Your task to perform on an android device: Add apple airpods to the cart on ebay.com, then select checkout. Image 0: 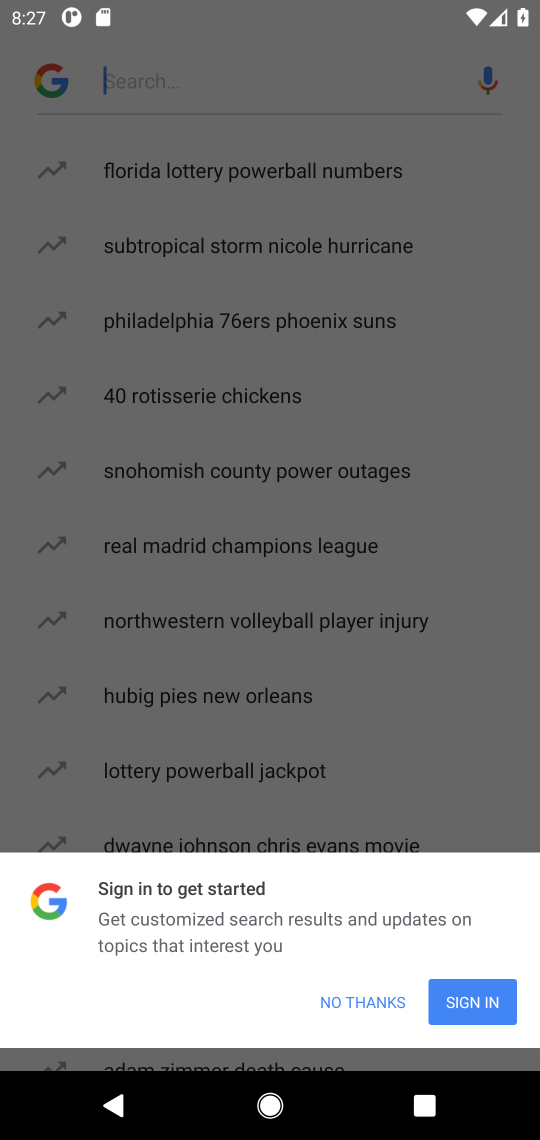
Step 0: press home button
Your task to perform on an android device: Add apple airpods to the cart on ebay.com, then select checkout. Image 1: 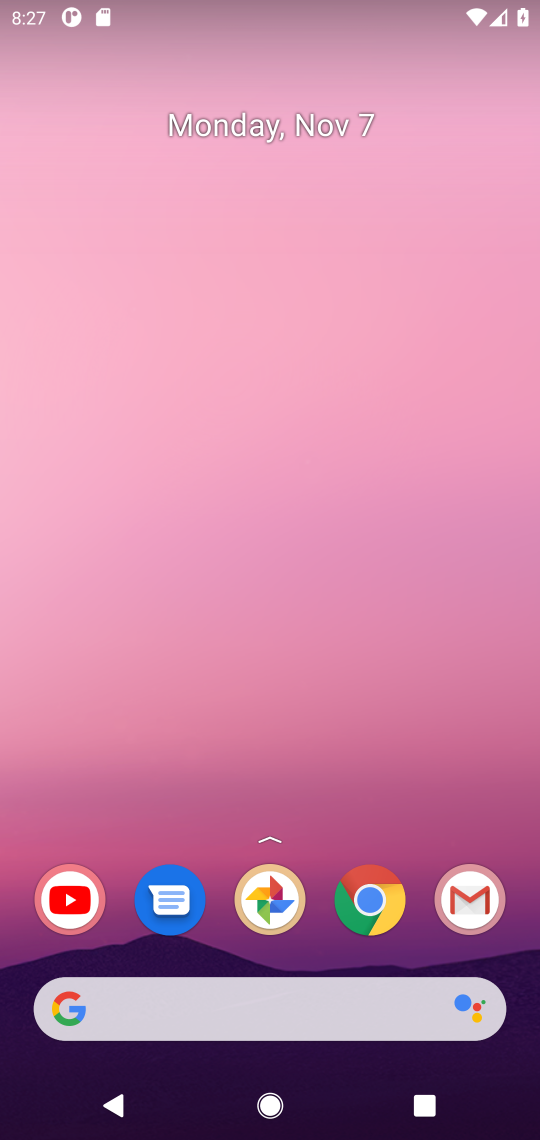
Step 1: drag from (298, 1004) to (443, 165)
Your task to perform on an android device: Add apple airpods to the cart on ebay.com, then select checkout. Image 2: 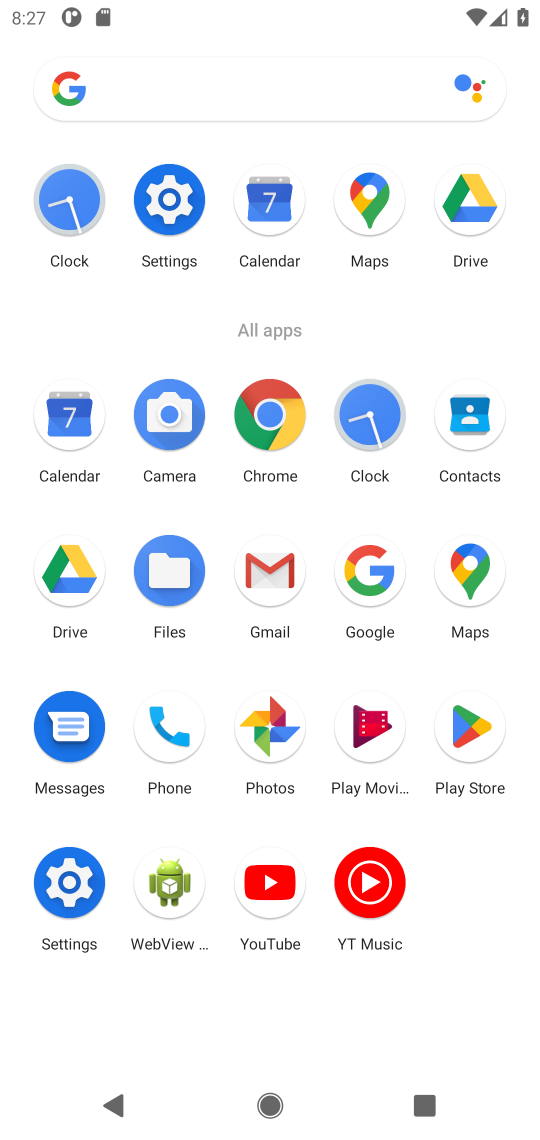
Step 2: click (388, 617)
Your task to perform on an android device: Add apple airpods to the cart on ebay.com, then select checkout. Image 3: 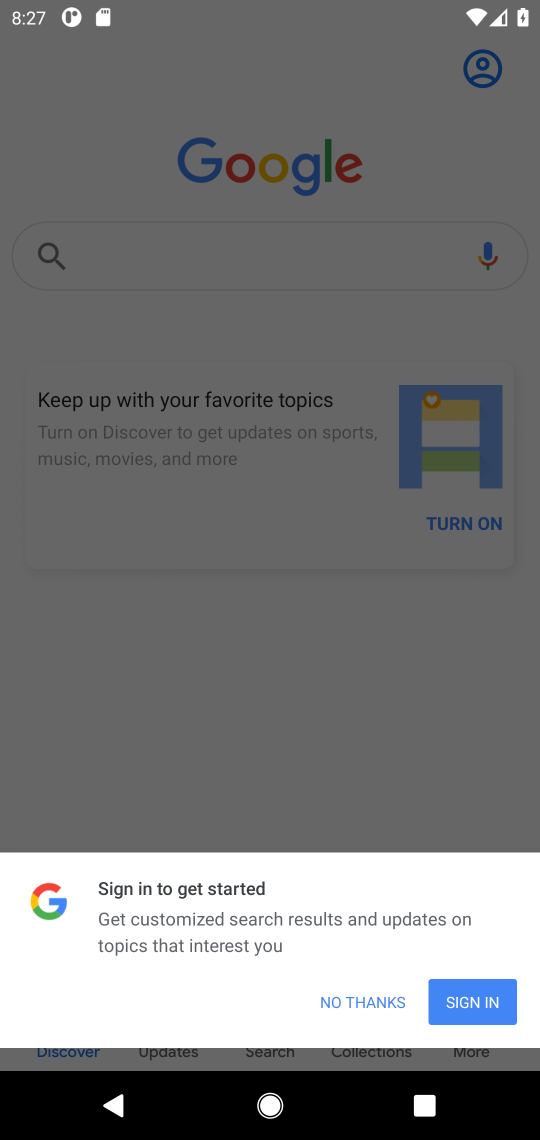
Step 3: click (357, 1013)
Your task to perform on an android device: Add apple airpods to the cart on ebay.com, then select checkout. Image 4: 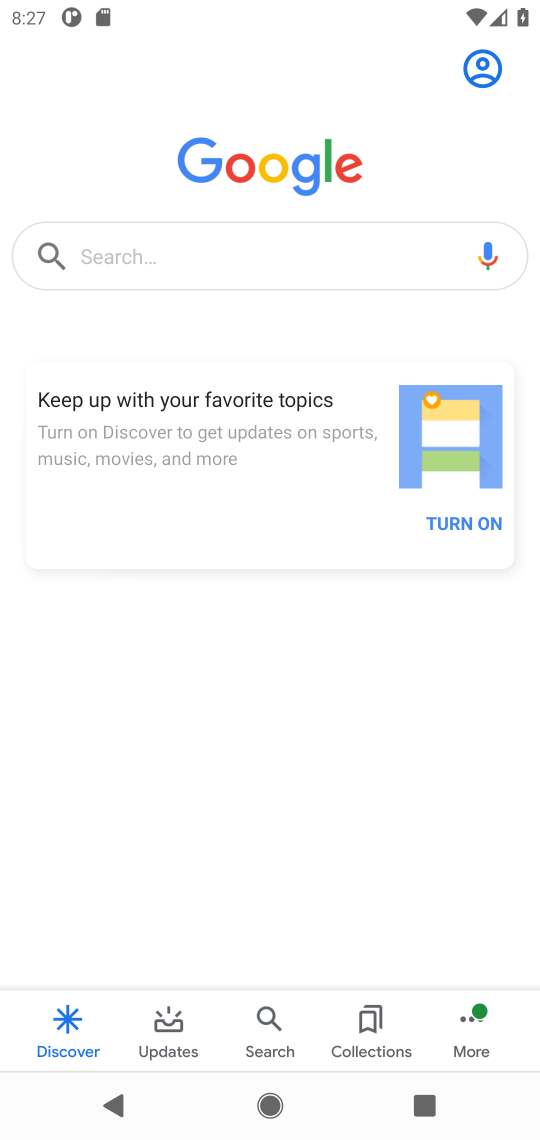
Step 4: click (334, 275)
Your task to perform on an android device: Add apple airpods to the cart on ebay.com, then select checkout. Image 5: 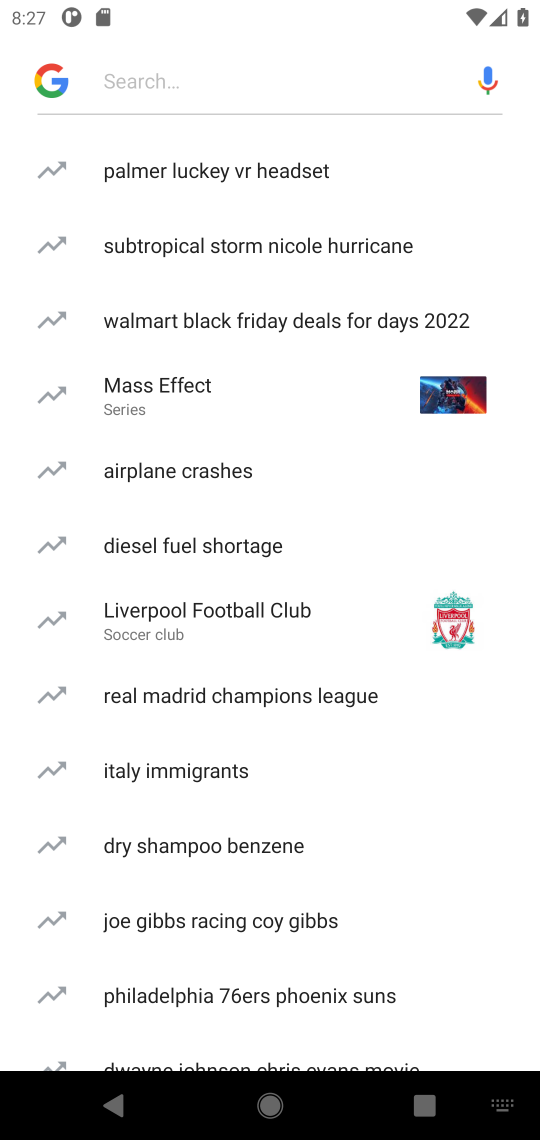
Step 5: type "ebay.com"
Your task to perform on an android device: Add apple airpods to the cart on ebay.com, then select checkout. Image 6: 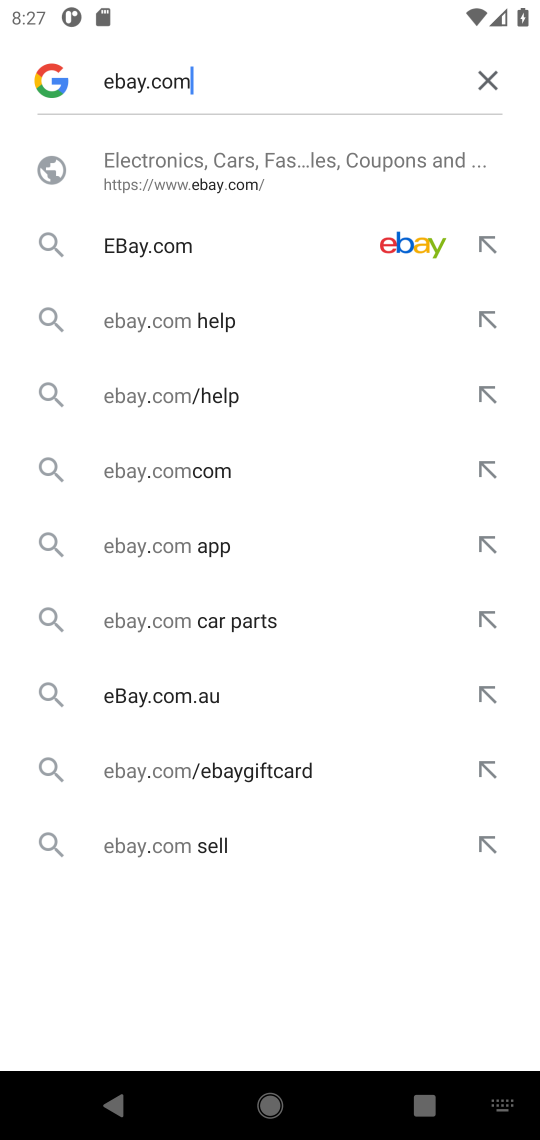
Step 6: click (311, 174)
Your task to perform on an android device: Add apple airpods to the cart on ebay.com, then select checkout. Image 7: 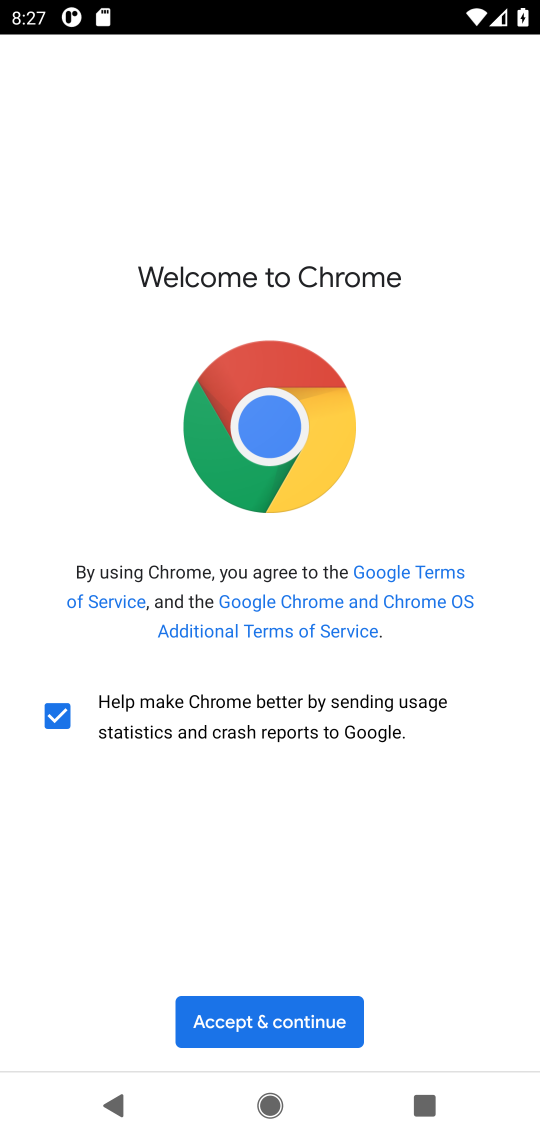
Step 7: click (239, 1042)
Your task to perform on an android device: Add apple airpods to the cart on ebay.com, then select checkout. Image 8: 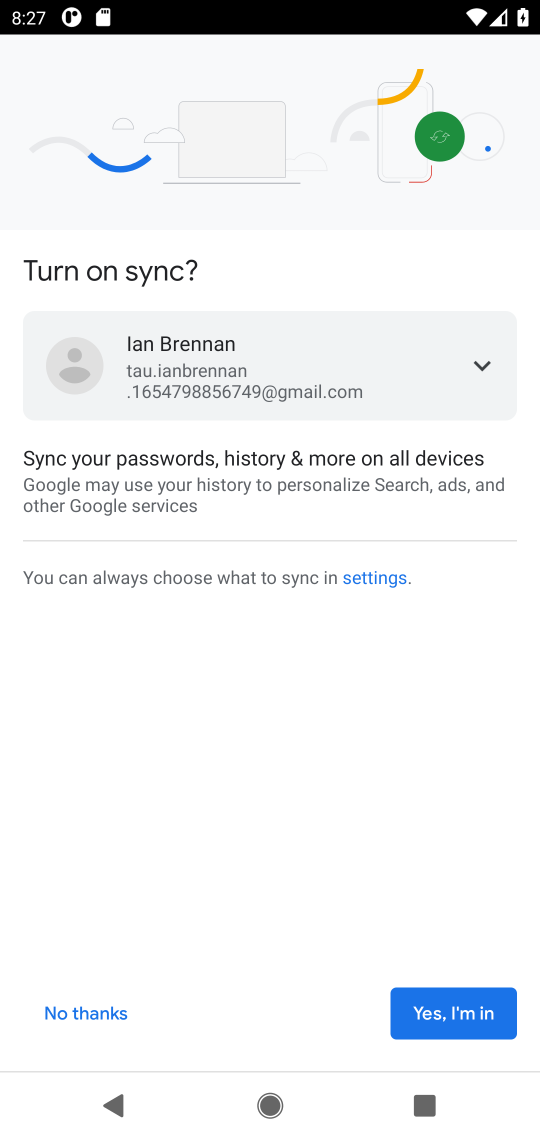
Step 8: click (489, 1021)
Your task to perform on an android device: Add apple airpods to the cart on ebay.com, then select checkout. Image 9: 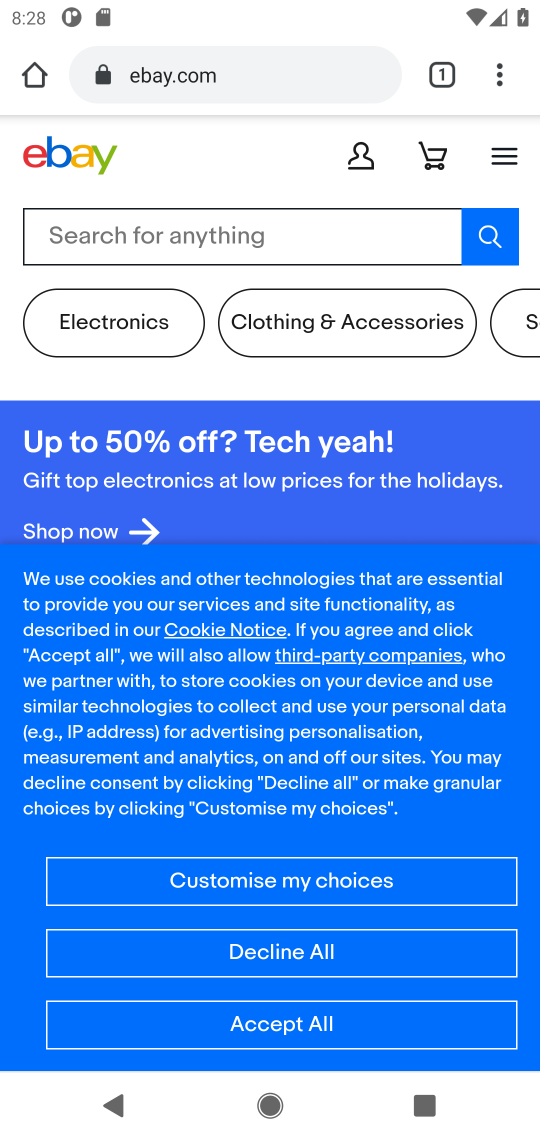
Step 9: click (343, 238)
Your task to perform on an android device: Add apple airpods to the cart on ebay.com, then select checkout. Image 10: 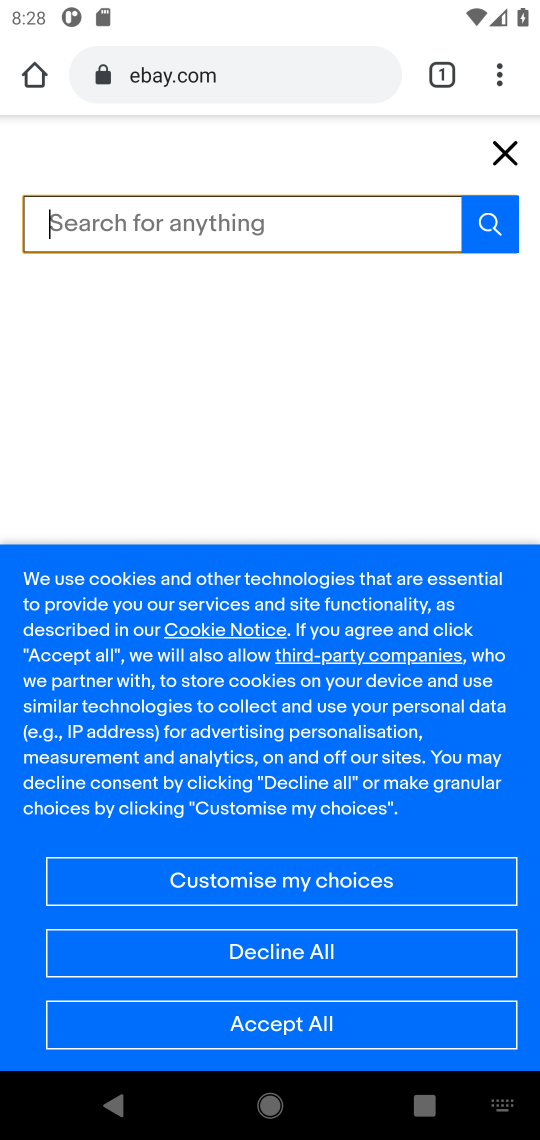
Step 10: type "apple airpods"
Your task to perform on an android device: Add apple airpods to the cart on ebay.com, then select checkout. Image 11: 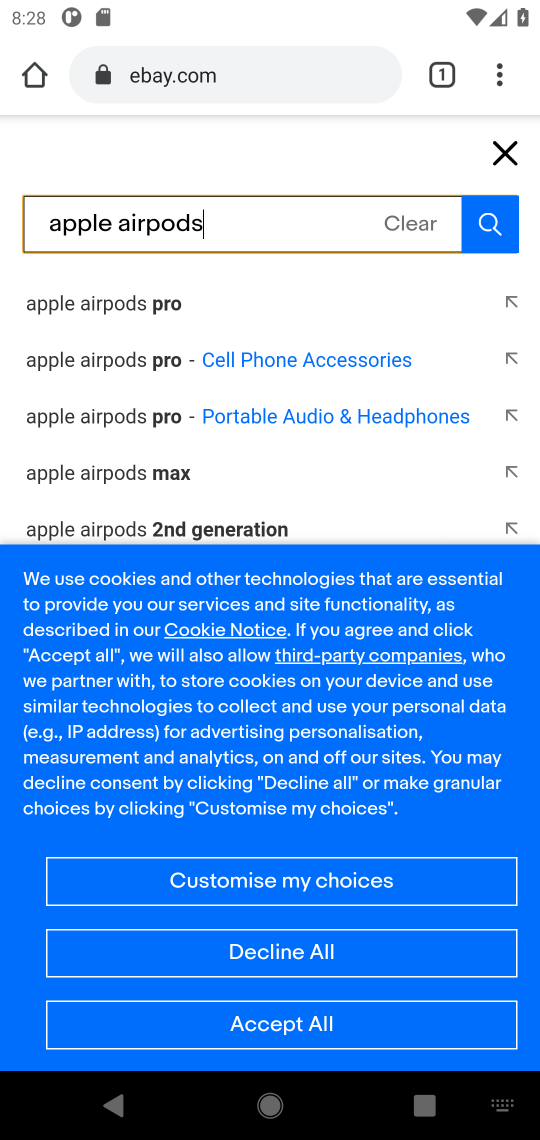
Step 11: drag from (239, 513) to (236, 349)
Your task to perform on an android device: Add apple airpods to the cart on ebay.com, then select checkout. Image 12: 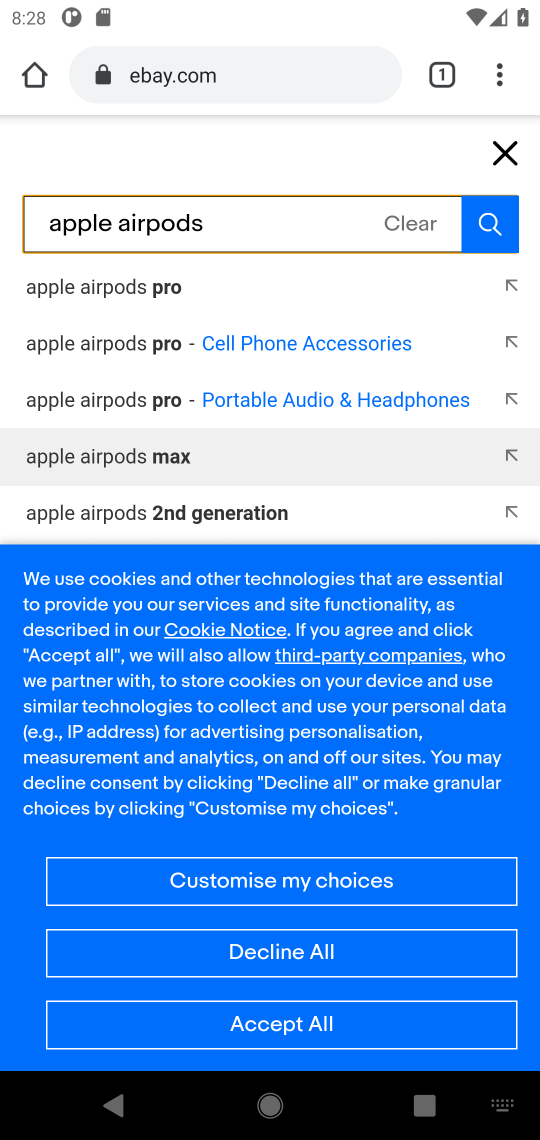
Step 12: click (193, 283)
Your task to perform on an android device: Add apple airpods to the cart on ebay.com, then select checkout. Image 13: 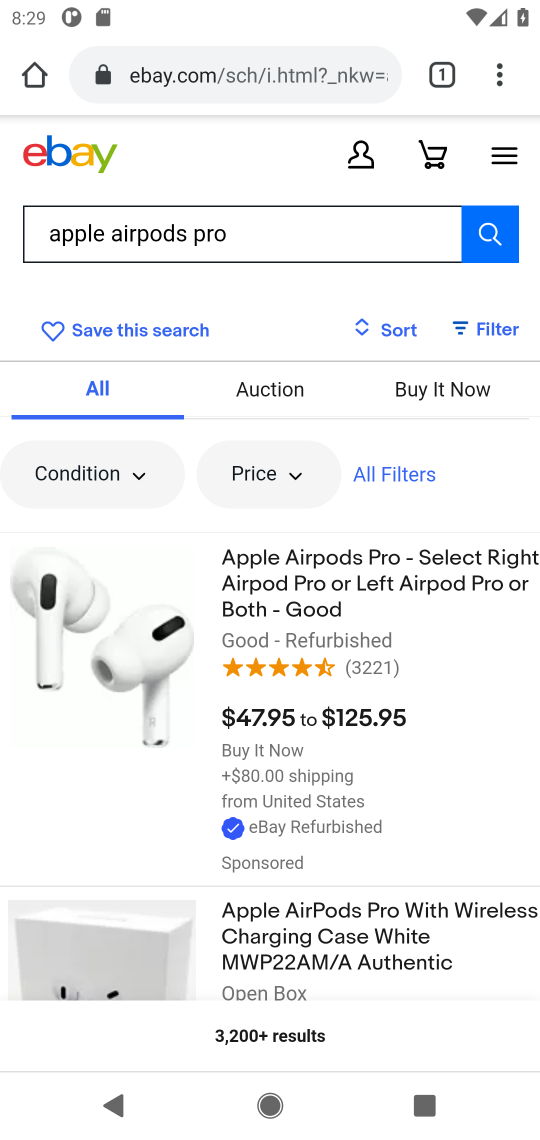
Step 13: click (265, 629)
Your task to perform on an android device: Add apple airpods to the cart on ebay.com, then select checkout. Image 14: 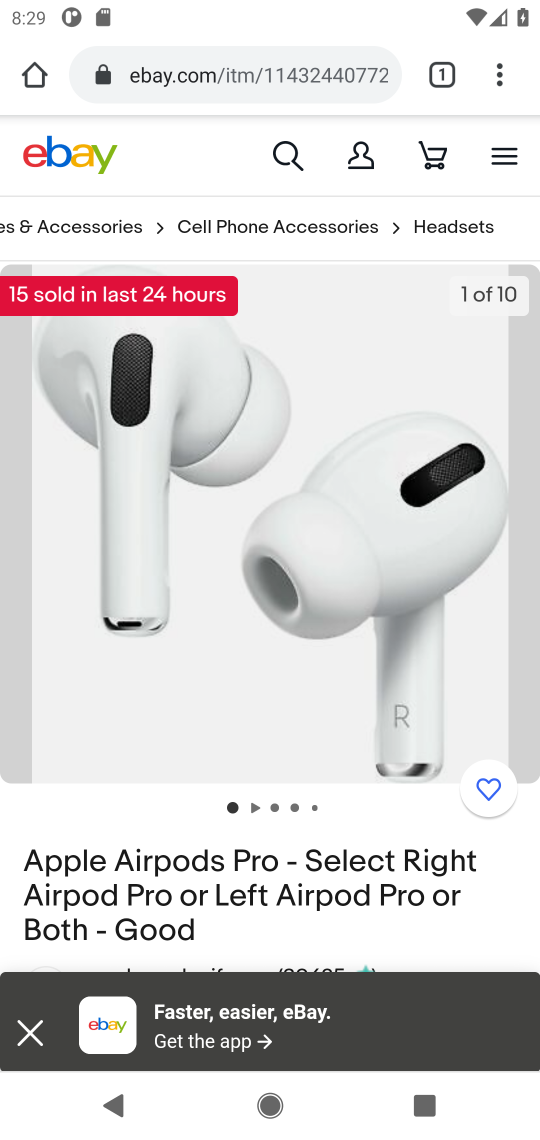
Step 14: drag from (336, 871) to (329, 419)
Your task to perform on an android device: Add apple airpods to the cart on ebay.com, then select checkout. Image 15: 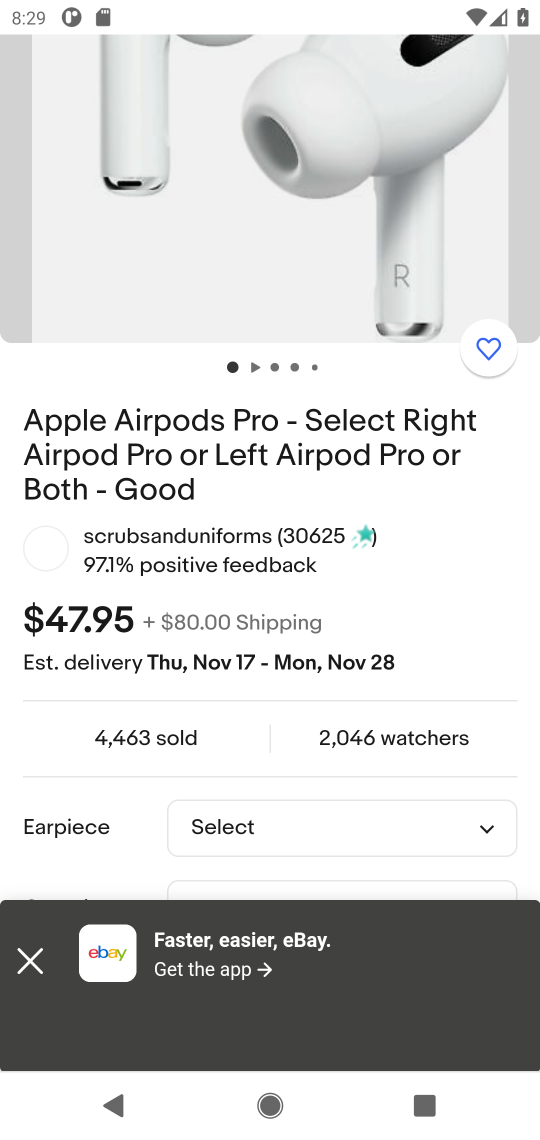
Step 15: drag from (346, 775) to (367, 253)
Your task to perform on an android device: Add apple airpods to the cart on ebay.com, then select checkout. Image 16: 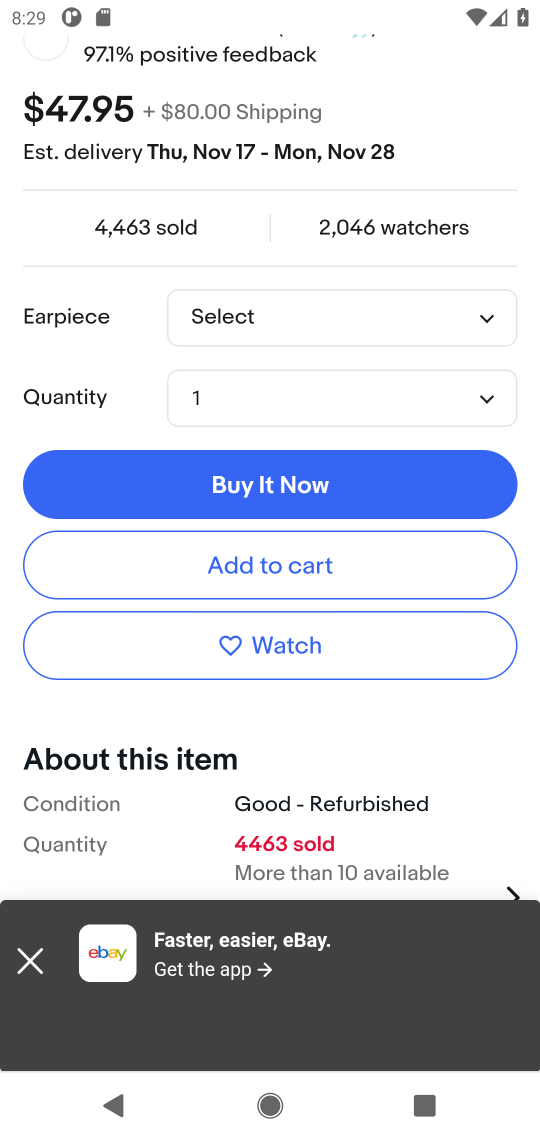
Step 16: click (326, 558)
Your task to perform on an android device: Add apple airpods to the cart on ebay.com, then select checkout. Image 17: 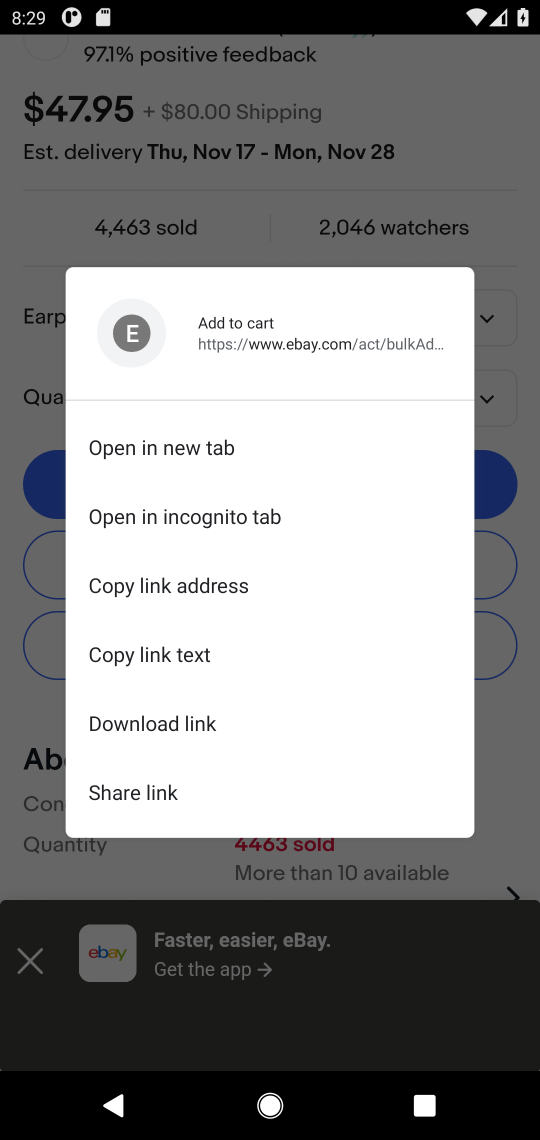
Step 17: click (433, 141)
Your task to perform on an android device: Add apple airpods to the cart on ebay.com, then select checkout. Image 18: 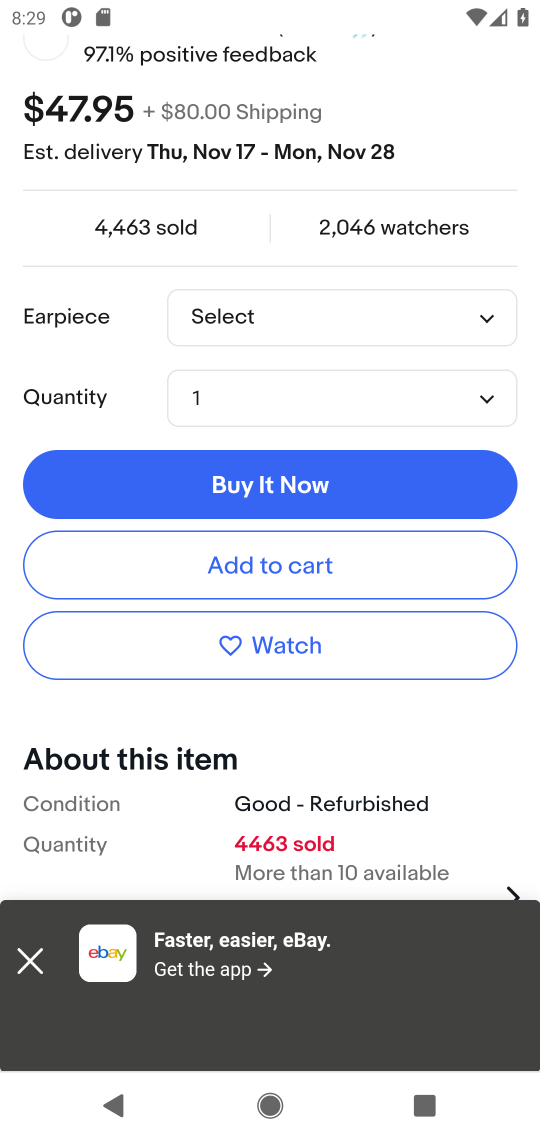
Step 18: click (306, 583)
Your task to perform on an android device: Add apple airpods to the cart on ebay.com, then select checkout. Image 19: 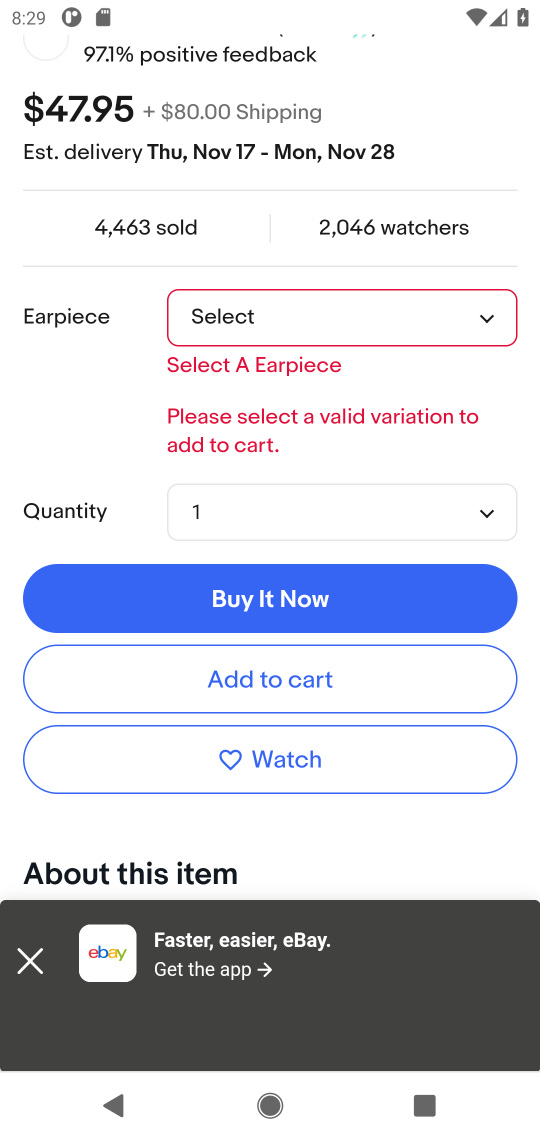
Step 19: click (484, 330)
Your task to perform on an android device: Add apple airpods to the cart on ebay.com, then select checkout. Image 20: 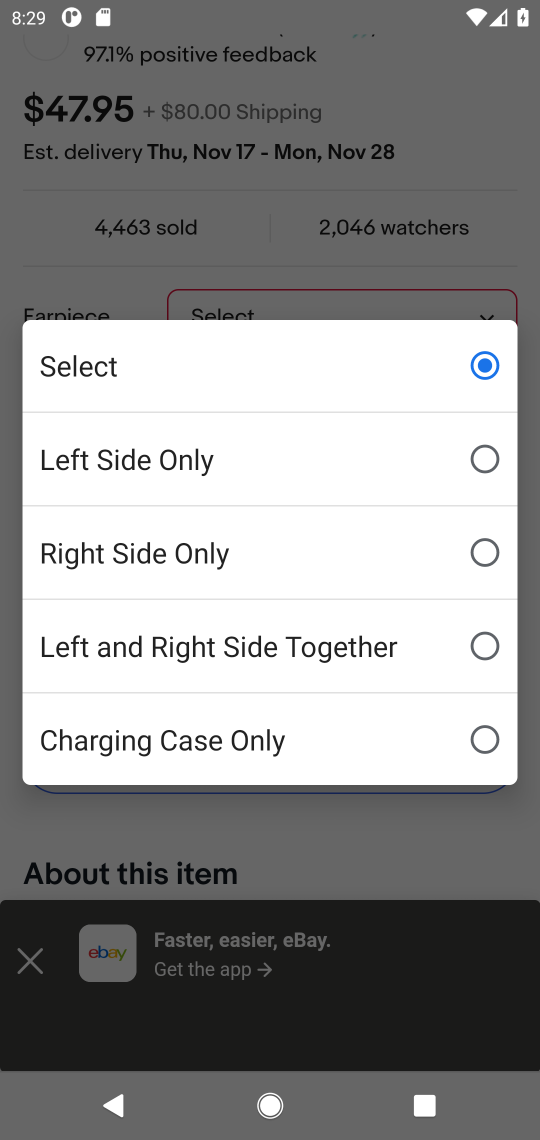
Step 20: click (471, 646)
Your task to perform on an android device: Add apple airpods to the cart on ebay.com, then select checkout. Image 21: 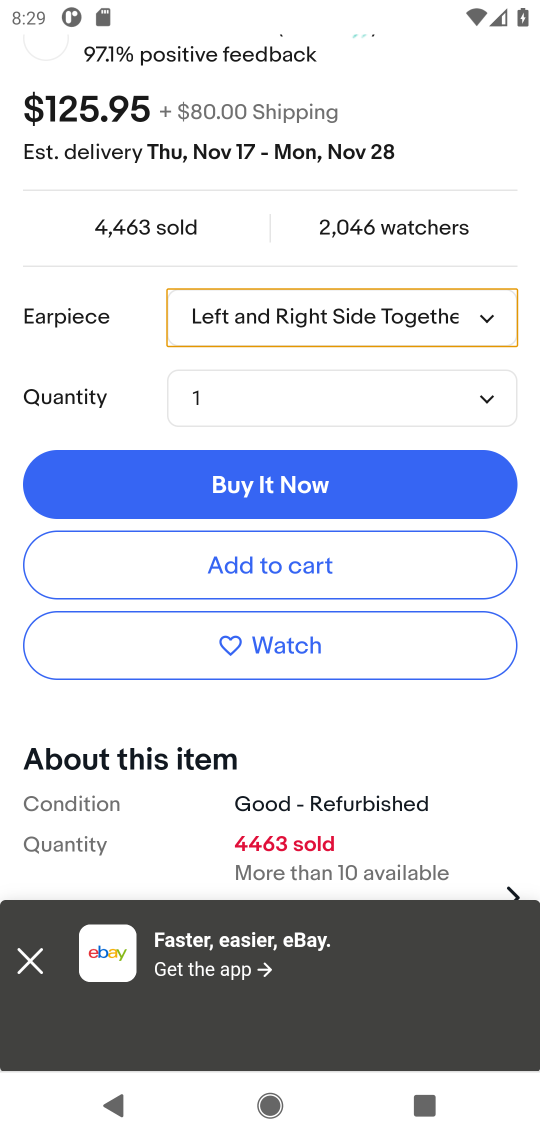
Step 21: click (393, 581)
Your task to perform on an android device: Add apple airpods to the cart on ebay.com, then select checkout. Image 22: 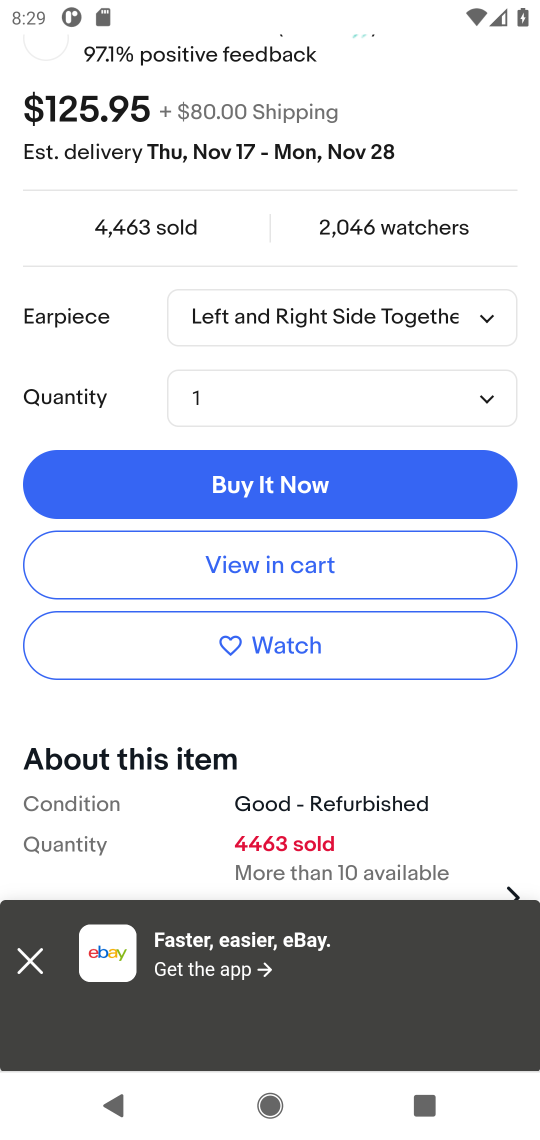
Step 22: click (389, 577)
Your task to perform on an android device: Add apple airpods to the cart on ebay.com, then select checkout. Image 23: 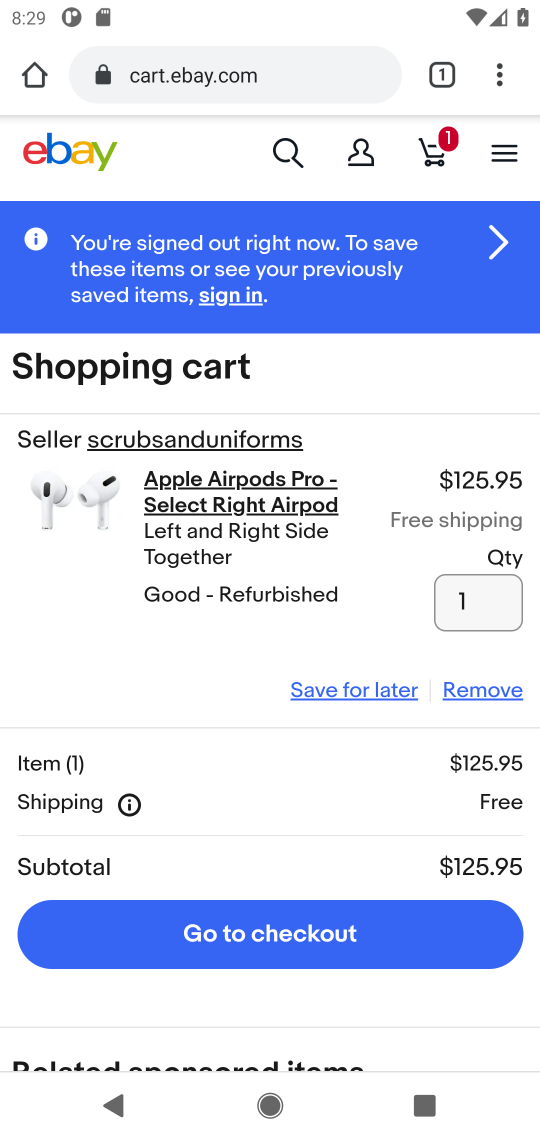
Step 23: click (429, 932)
Your task to perform on an android device: Add apple airpods to the cart on ebay.com, then select checkout. Image 24: 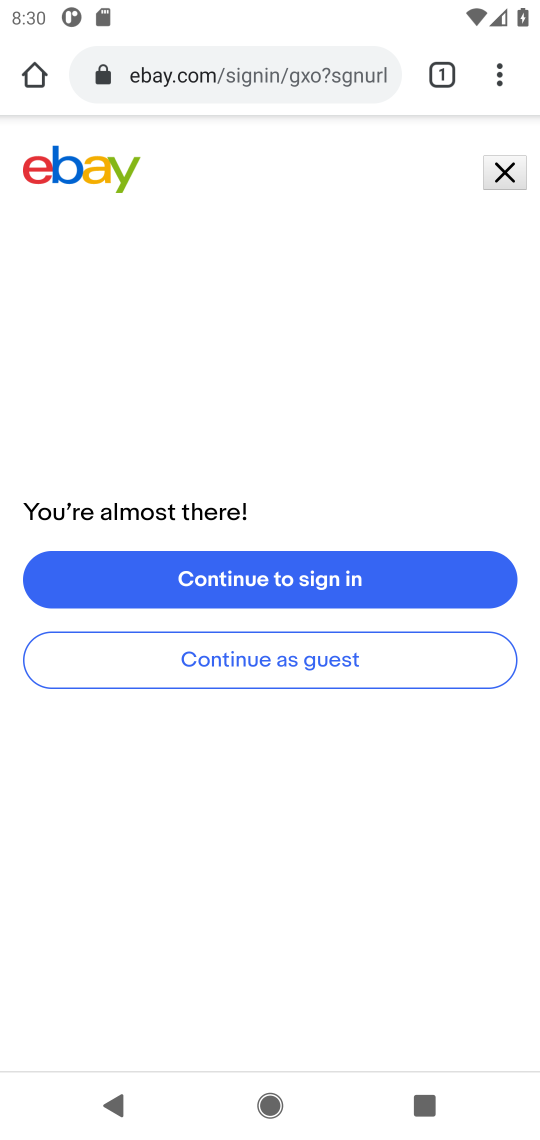
Step 24: task complete